Your task to perform on an android device: What's the news in Argentina? Image 0: 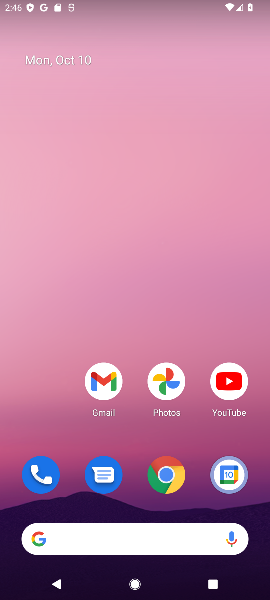
Step 0: drag from (99, 489) to (181, 144)
Your task to perform on an android device: What's the news in Argentina? Image 1: 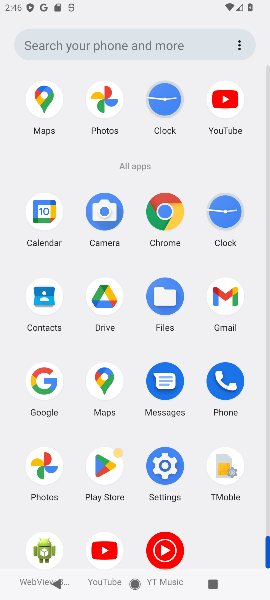
Step 1: click (42, 392)
Your task to perform on an android device: What's the news in Argentina? Image 2: 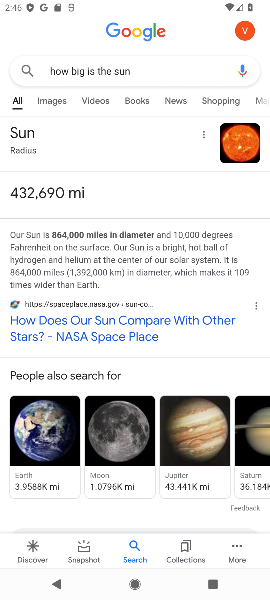
Step 2: click (184, 82)
Your task to perform on an android device: What's the news in Argentina? Image 3: 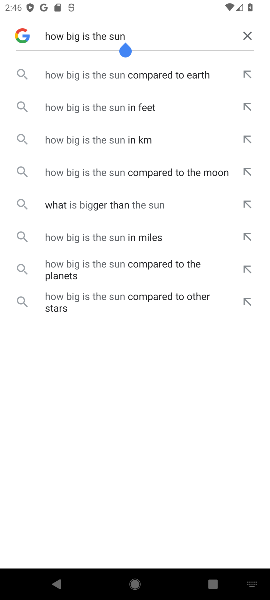
Step 3: click (246, 34)
Your task to perform on an android device: What's the news in Argentina? Image 4: 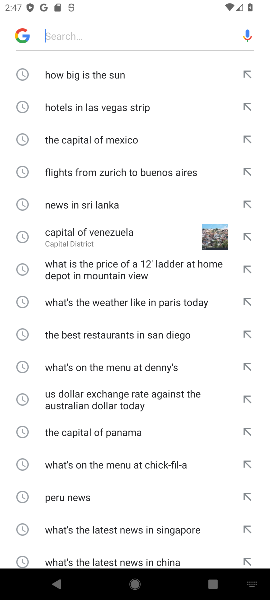
Step 4: type "news in Argentina"
Your task to perform on an android device: What's the news in Argentina? Image 5: 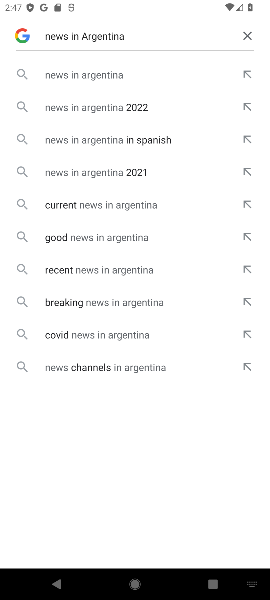
Step 5: click (83, 77)
Your task to perform on an android device: What's the news in Argentina? Image 6: 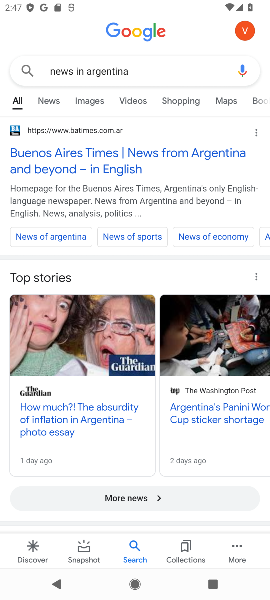
Step 6: task complete